Your task to perform on an android device: turn off location history Image 0: 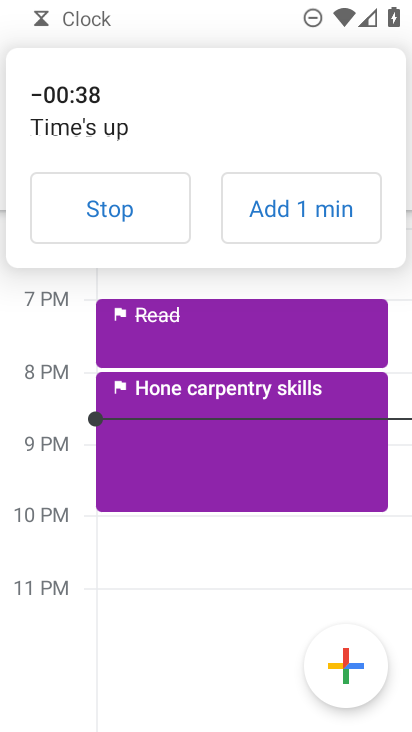
Step 0: press home button
Your task to perform on an android device: turn off location history Image 1: 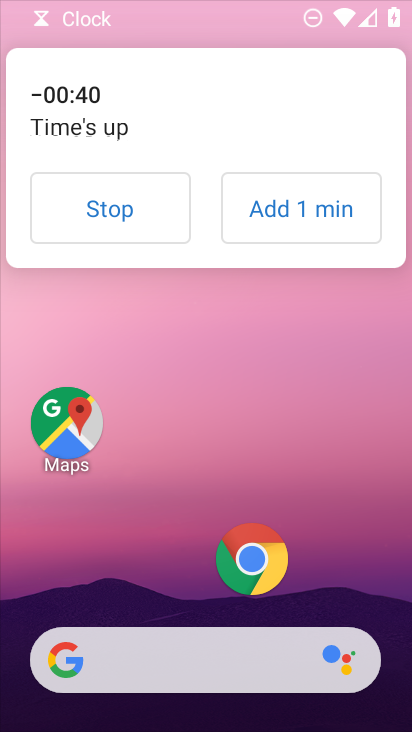
Step 1: drag from (219, 677) to (219, 258)
Your task to perform on an android device: turn off location history Image 2: 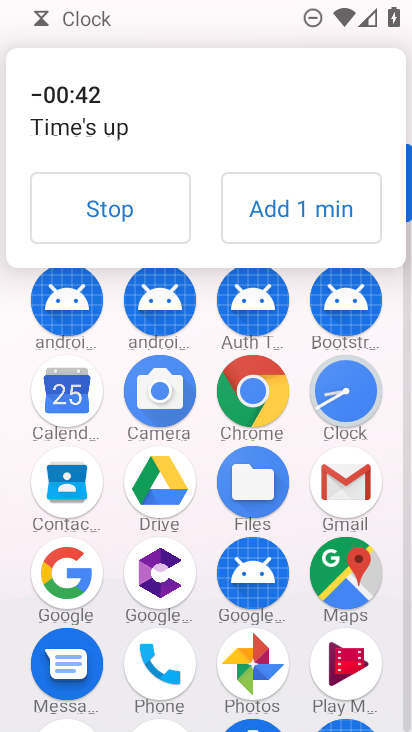
Step 2: click (115, 213)
Your task to perform on an android device: turn off location history Image 3: 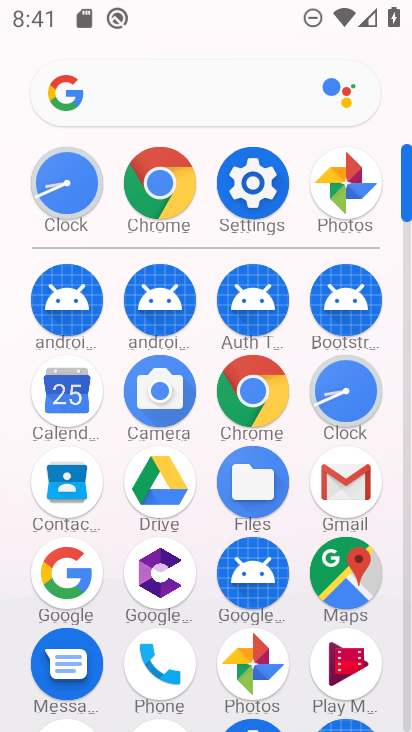
Step 3: click (243, 205)
Your task to perform on an android device: turn off location history Image 4: 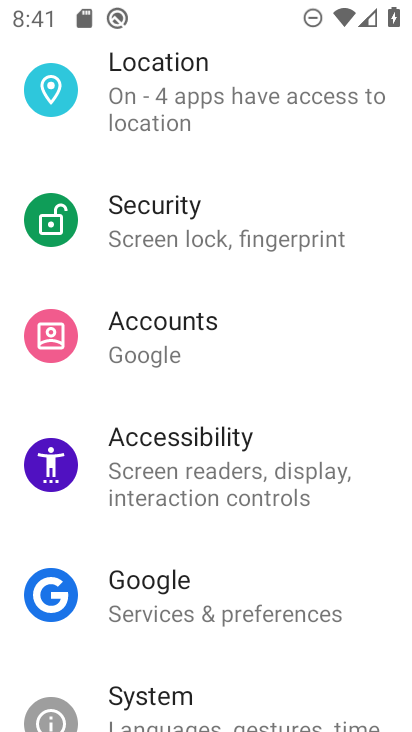
Step 4: drag from (193, 262) to (178, 522)
Your task to perform on an android device: turn off location history Image 5: 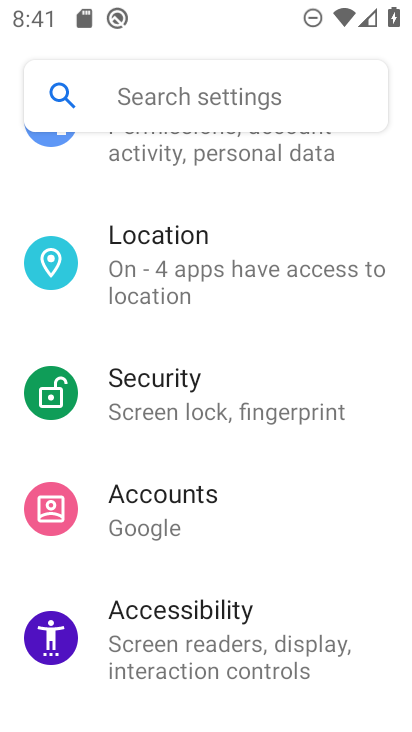
Step 5: click (246, 277)
Your task to perform on an android device: turn off location history Image 6: 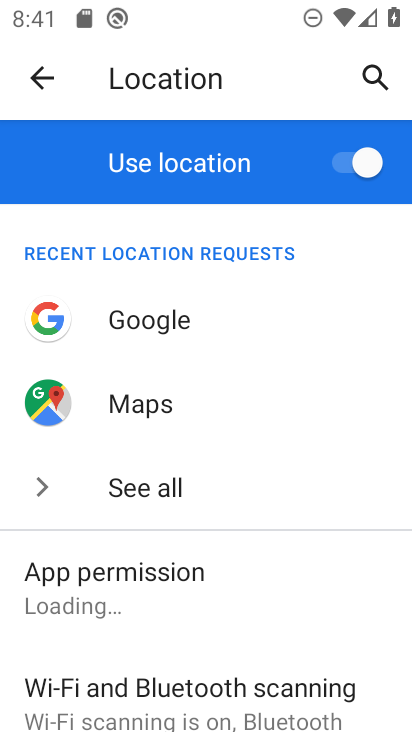
Step 6: drag from (302, 443) to (300, 145)
Your task to perform on an android device: turn off location history Image 7: 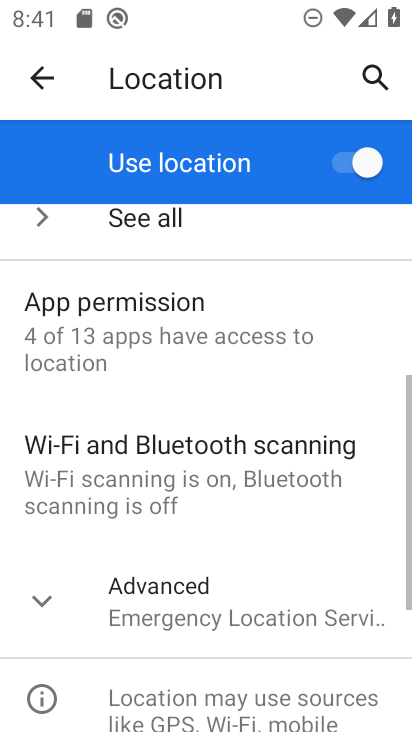
Step 7: click (250, 567)
Your task to perform on an android device: turn off location history Image 8: 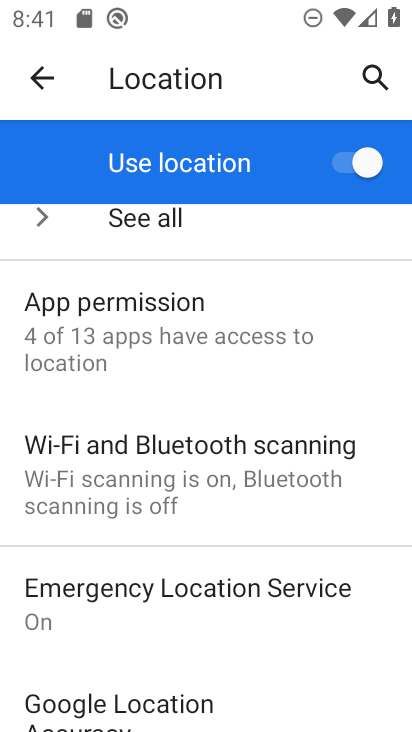
Step 8: drag from (223, 585) to (283, 204)
Your task to perform on an android device: turn off location history Image 9: 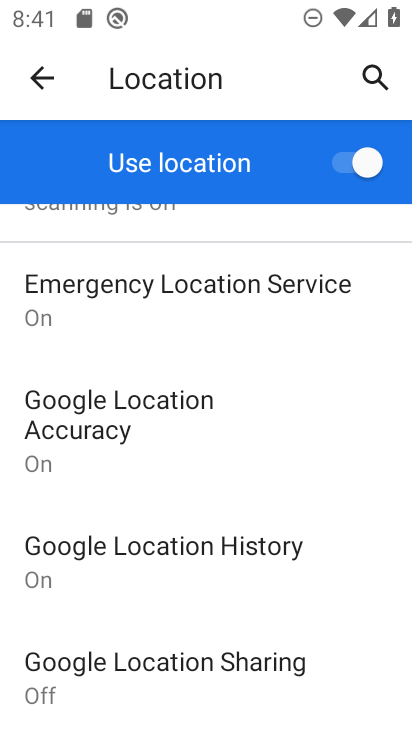
Step 9: click (191, 562)
Your task to perform on an android device: turn off location history Image 10: 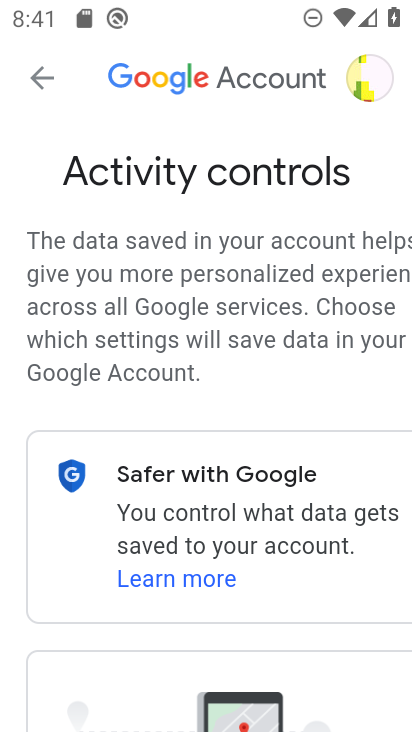
Step 10: drag from (307, 640) to (56, 199)
Your task to perform on an android device: turn off location history Image 11: 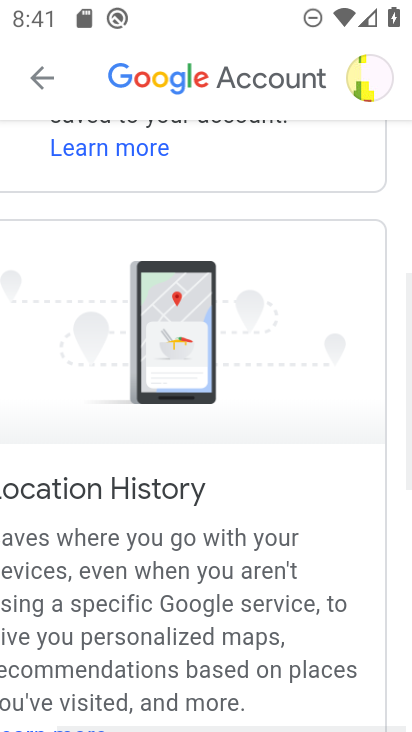
Step 11: drag from (248, 614) to (146, 182)
Your task to perform on an android device: turn off location history Image 12: 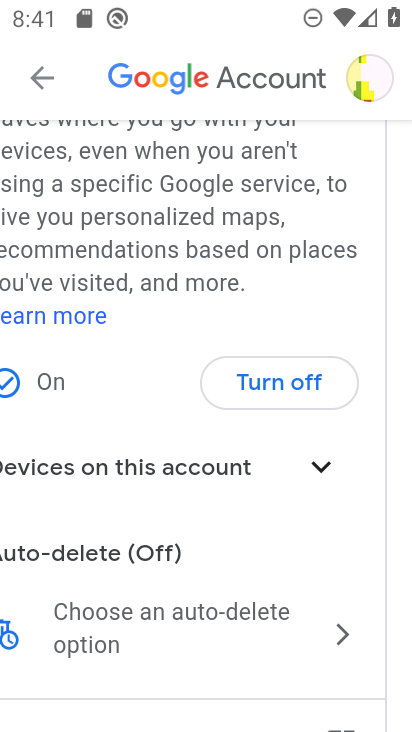
Step 12: click (298, 394)
Your task to perform on an android device: turn off location history Image 13: 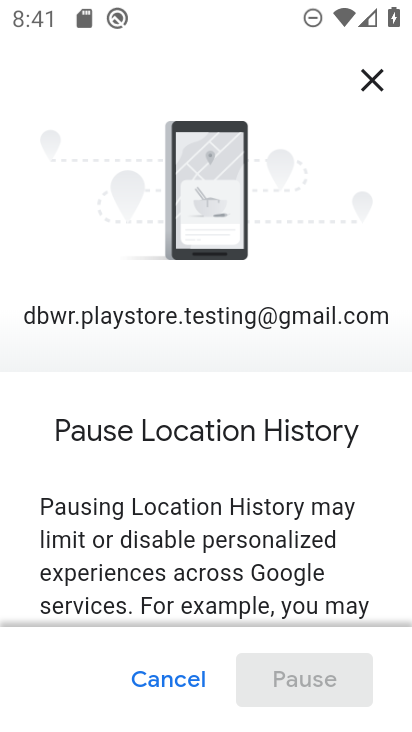
Step 13: drag from (282, 560) to (182, 115)
Your task to perform on an android device: turn off location history Image 14: 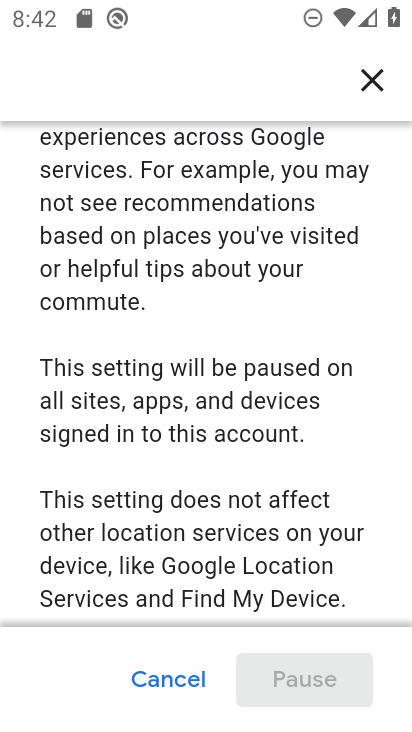
Step 14: drag from (237, 503) to (216, 136)
Your task to perform on an android device: turn off location history Image 15: 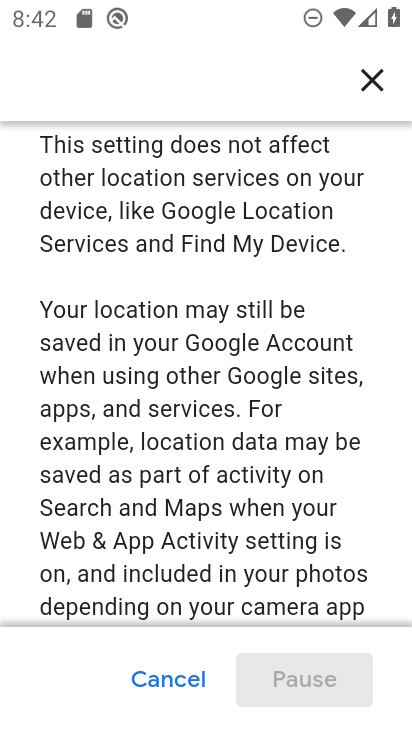
Step 15: drag from (218, 499) to (171, 148)
Your task to perform on an android device: turn off location history Image 16: 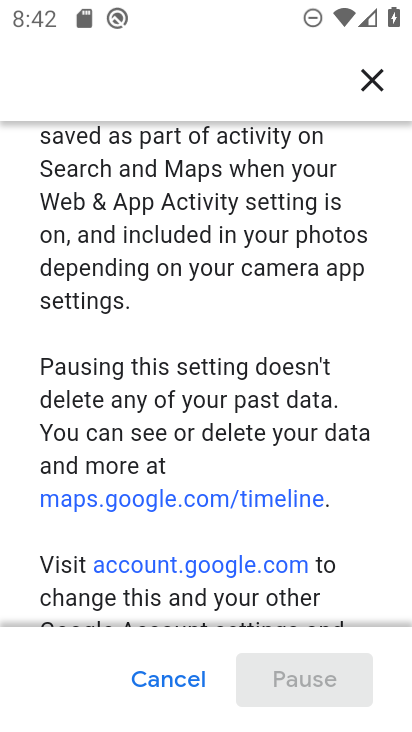
Step 16: drag from (264, 552) to (173, 139)
Your task to perform on an android device: turn off location history Image 17: 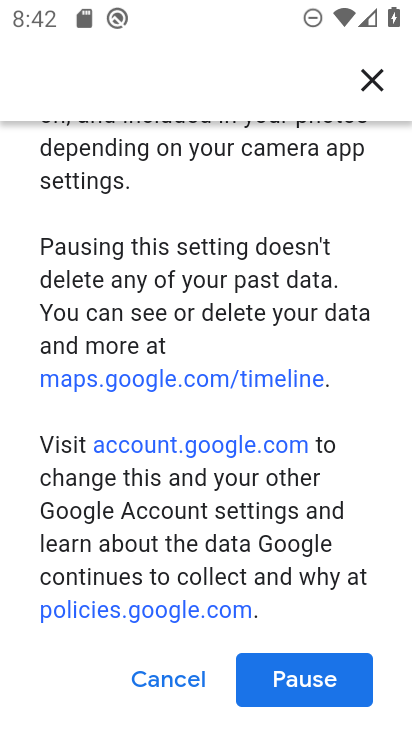
Step 17: click (326, 691)
Your task to perform on an android device: turn off location history Image 18: 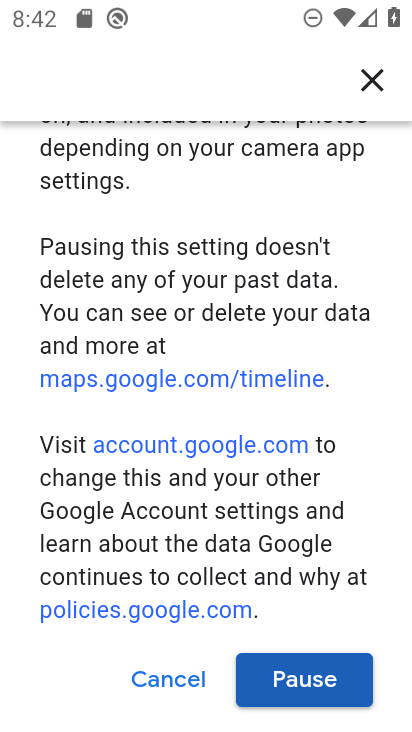
Step 18: click (326, 689)
Your task to perform on an android device: turn off location history Image 19: 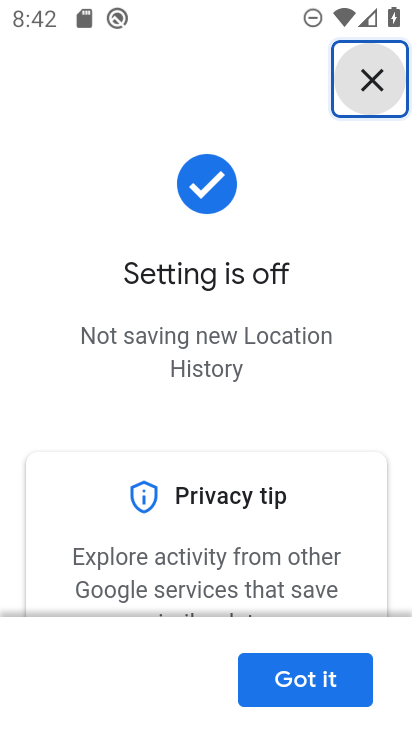
Step 19: click (325, 682)
Your task to perform on an android device: turn off location history Image 20: 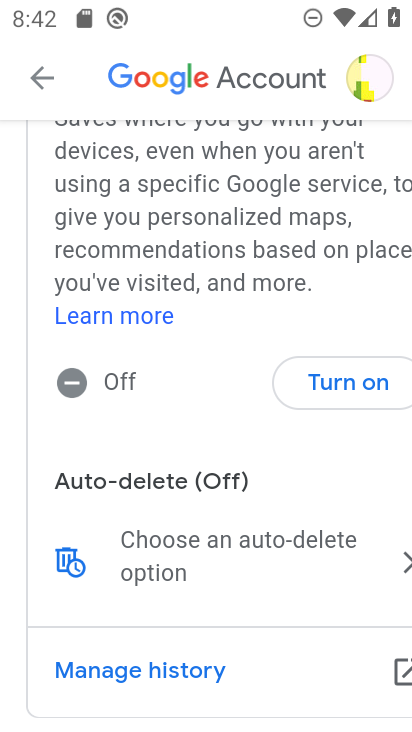
Step 20: task complete